Your task to perform on an android device: Open settings on Google Maps Image 0: 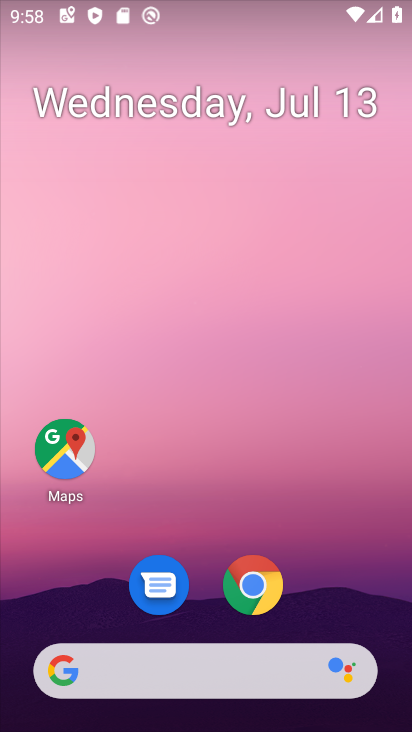
Step 0: click (66, 448)
Your task to perform on an android device: Open settings on Google Maps Image 1: 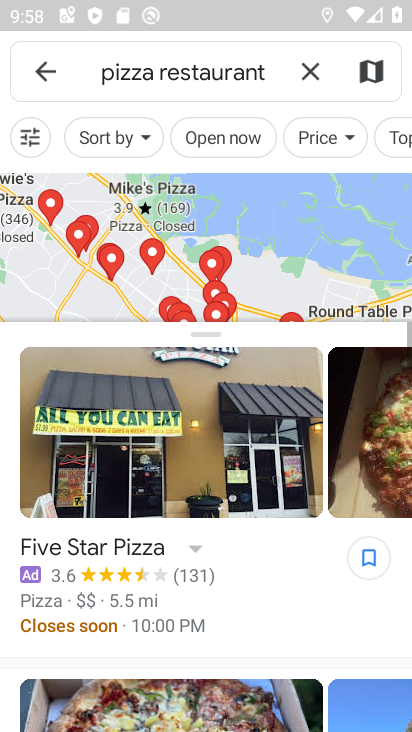
Step 1: click (310, 62)
Your task to perform on an android device: Open settings on Google Maps Image 2: 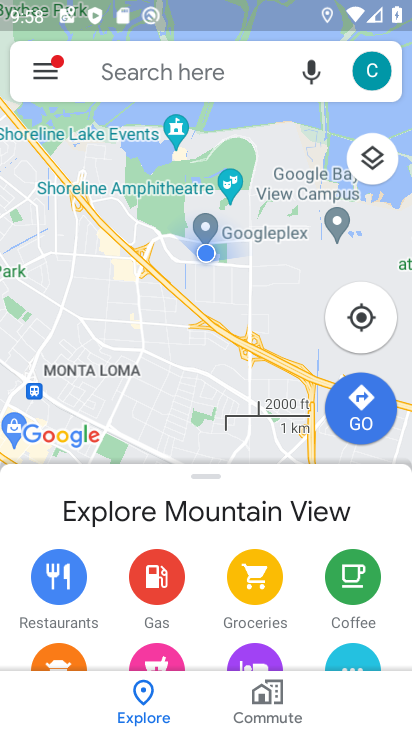
Step 2: click (44, 73)
Your task to perform on an android device: Open settings on Google Maps Image 3: 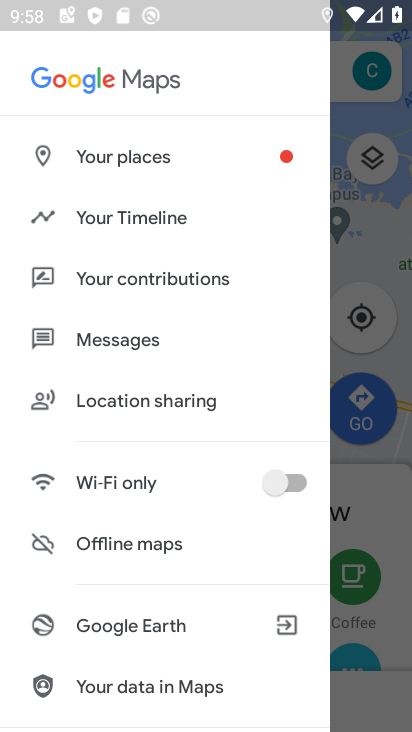
Step 3: drag from (149, 597) to (176, 135)
Your task to perform on an android device: Open settings on Google Maps Image 4: 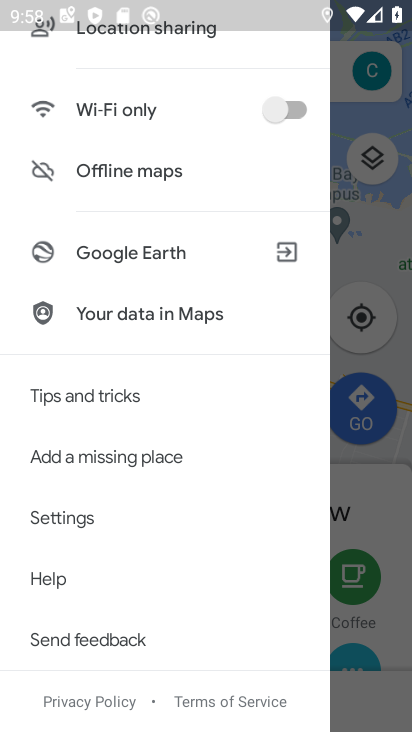
Step 4: click (83, 516)
Your task to perform on an android device: Open settings on Google Maps Image 5: 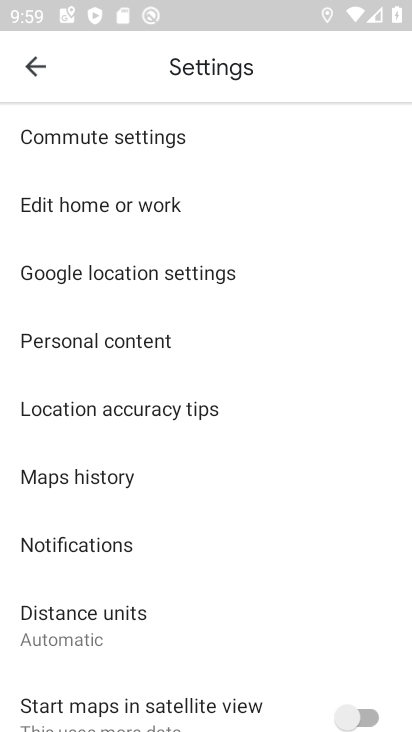
Step 5: task complete